Your task to perform on an android device: Show the shopping cart on costco.com. Search for "dell xps" on costco.com, select the first entry, add it to the cart, then select checkout. Image 0: 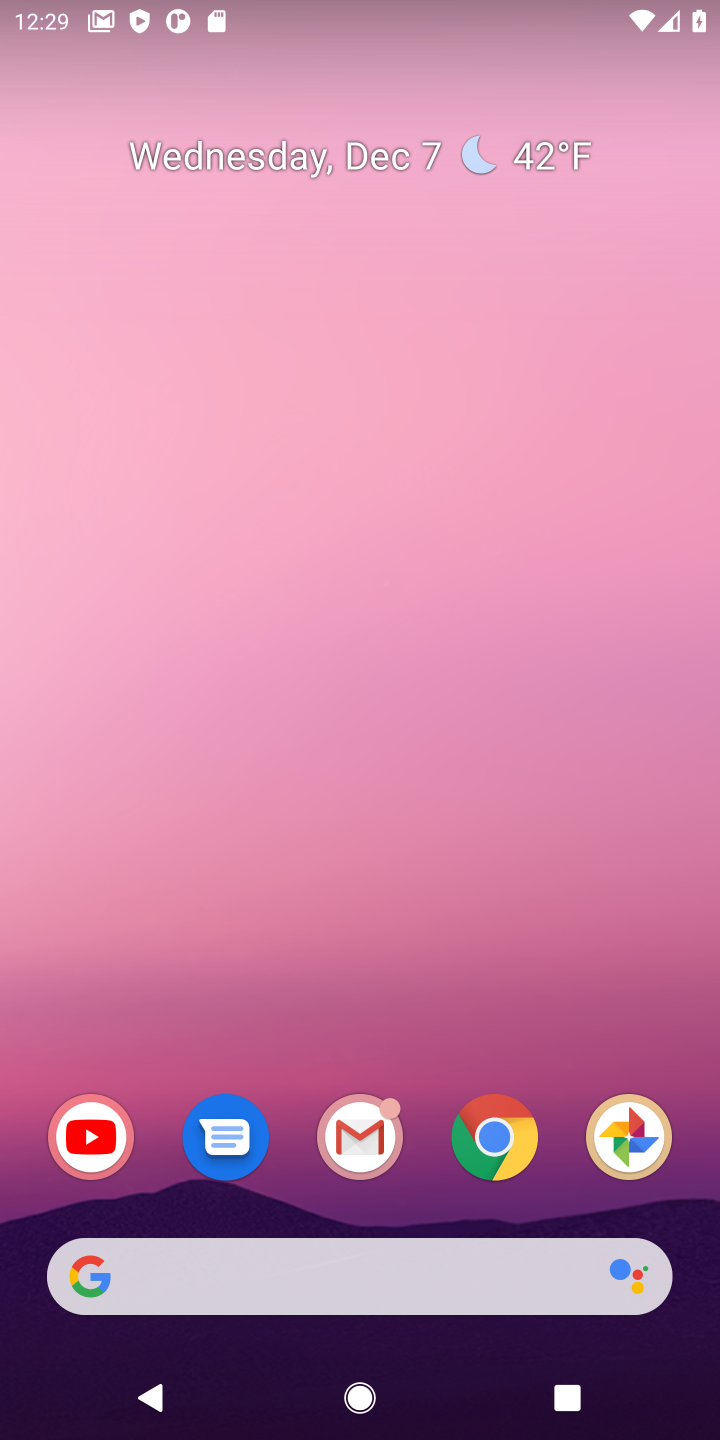
Step 0: drag from (527, 954) to (569, 436)
Your task to perform on an android device: Show the shopping cart on costco.com. Search for "dell xps" on costco.com, select the first entry, add it to the cart, then select checkout. Image 1: 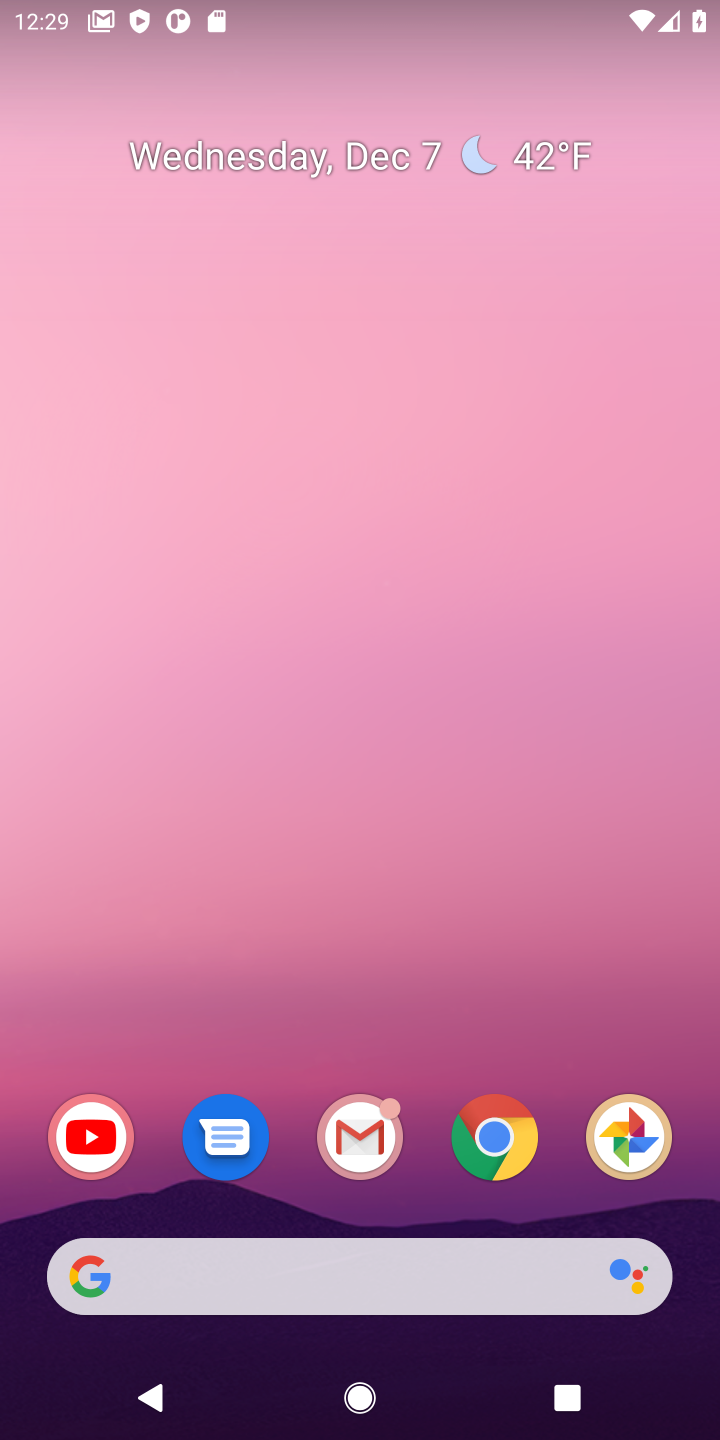
Step 1: drag from (237, 1267) to (326, 532)
Your task to perform on an android device: Show the shopping cart on costco.com. Search for "dell xps" on costco.com, select the first entry, add it to the cart, then select checkout. Image 2: 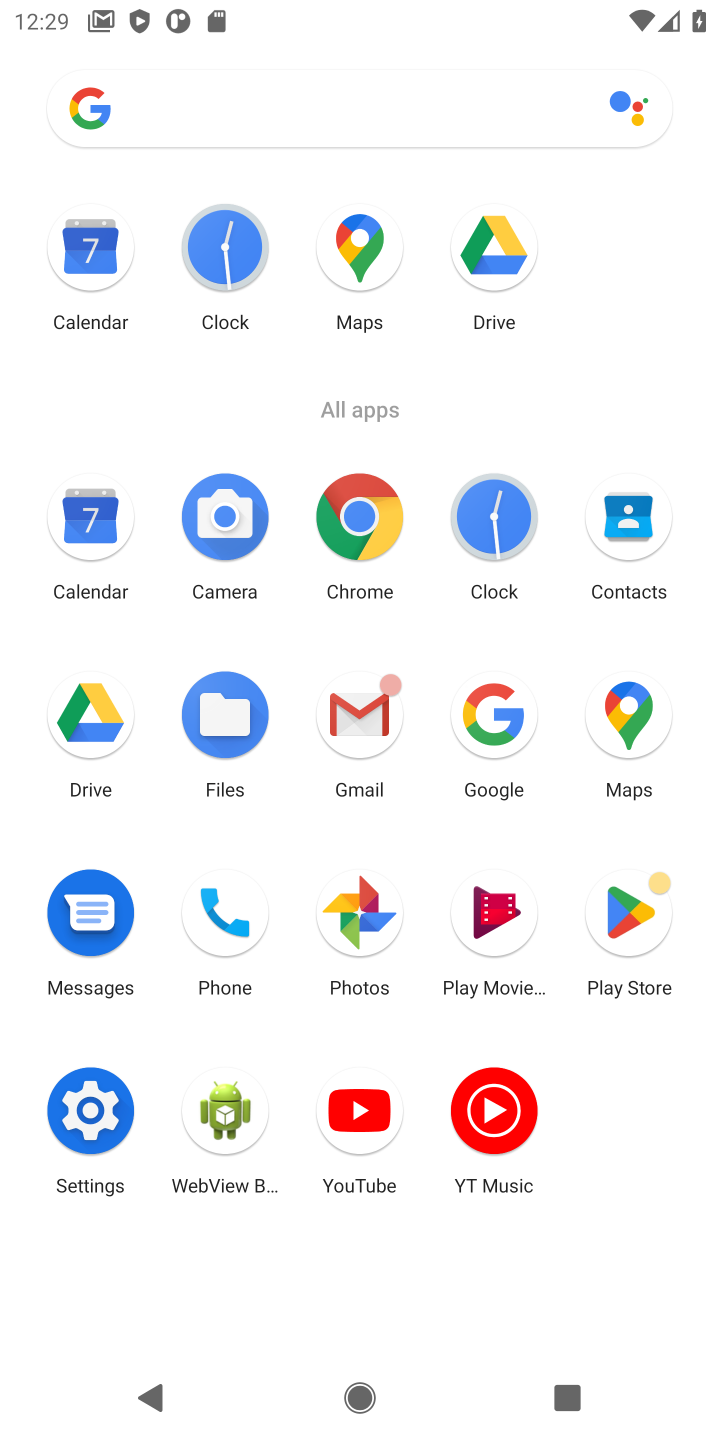
Step 2: click (481, 703)
Your task to perform on an android device: Show the shopping cart on costco.com. Search for "dell xps" on costco.com, select the first entry, add it to the cart, then select checkout. Image 3: 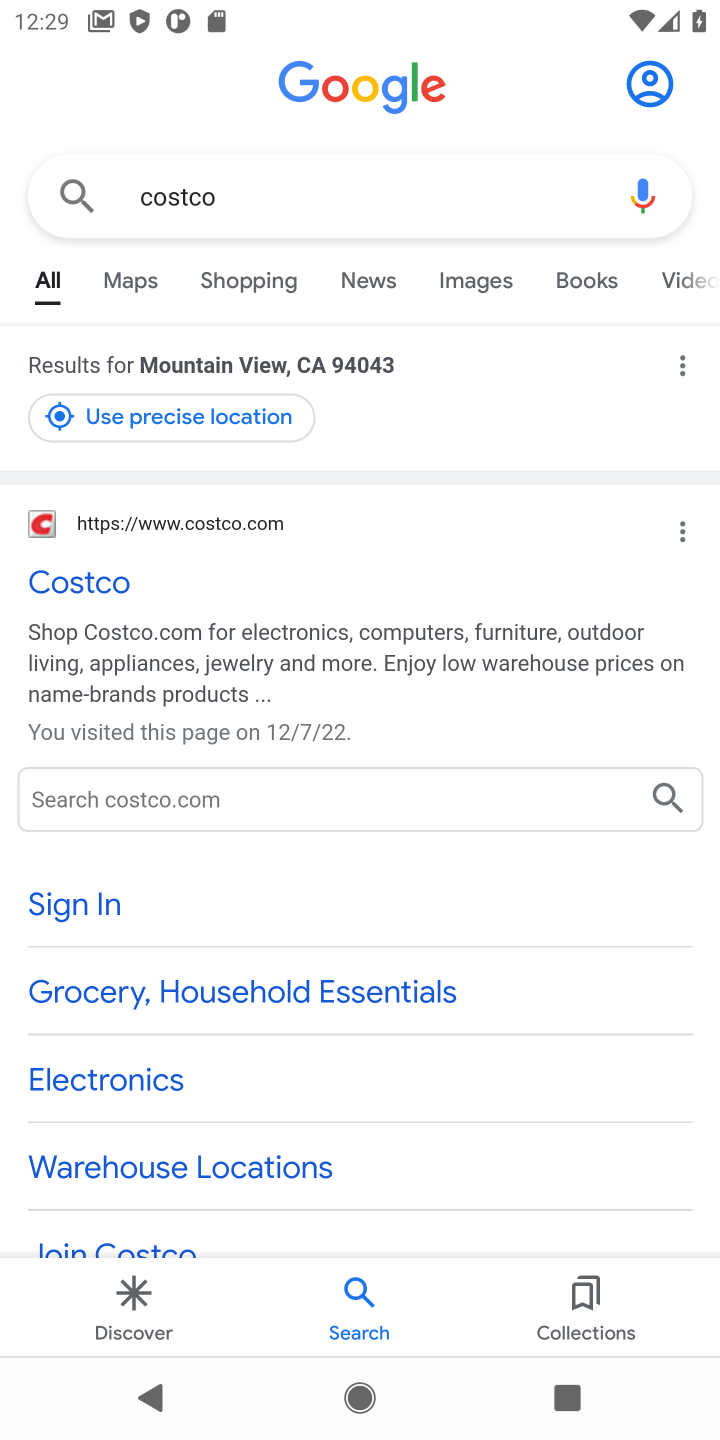
Step 3: click (99, 588)
Your task to perform on an android device: Show the shopping cart on costco.com. Search for "dell xps" on costco.com, select the first entry, add it to the cart, then select checkout. Image 4: 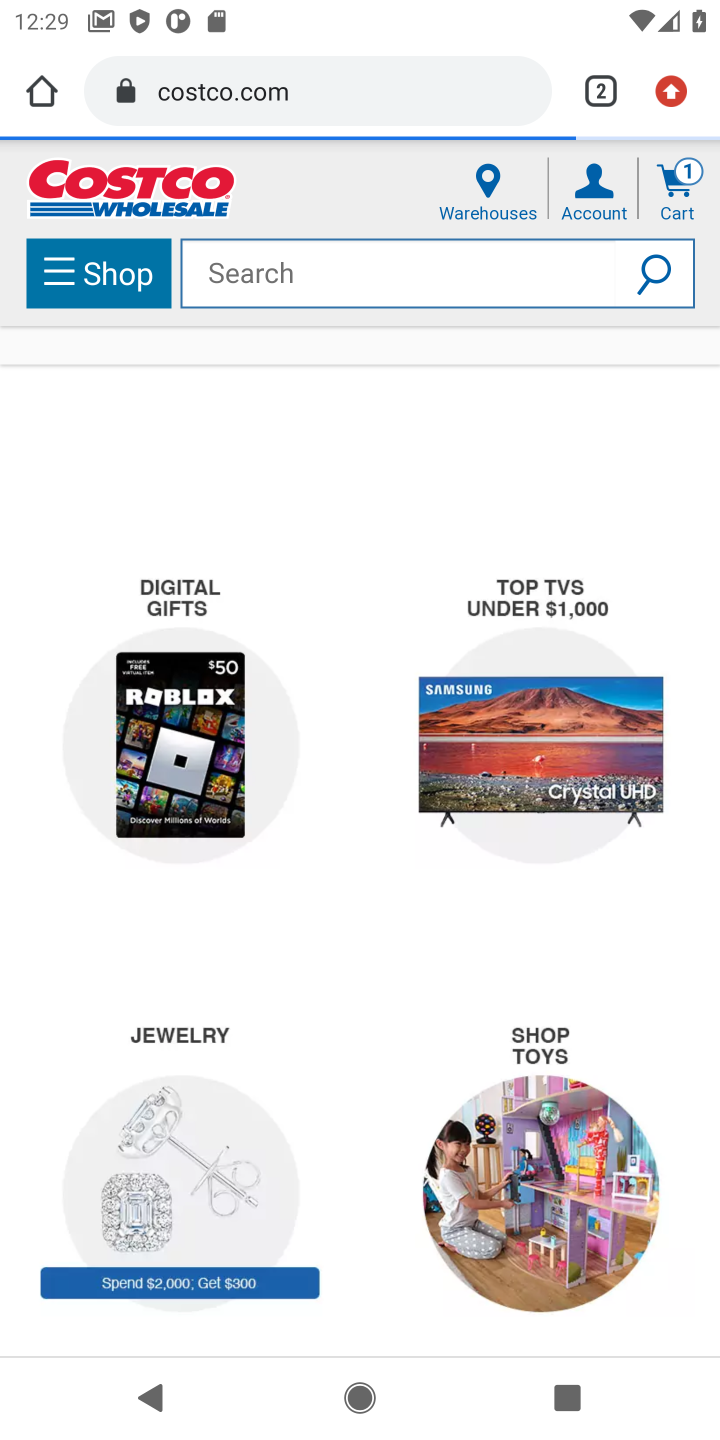
Step 4: click (316, 287)
Your task to perform on an android device: Show the shopping cart on costco.com. Search for "dell xps" on costco.com, select the first entry, add it to the cart, then select checkout. Image 5: 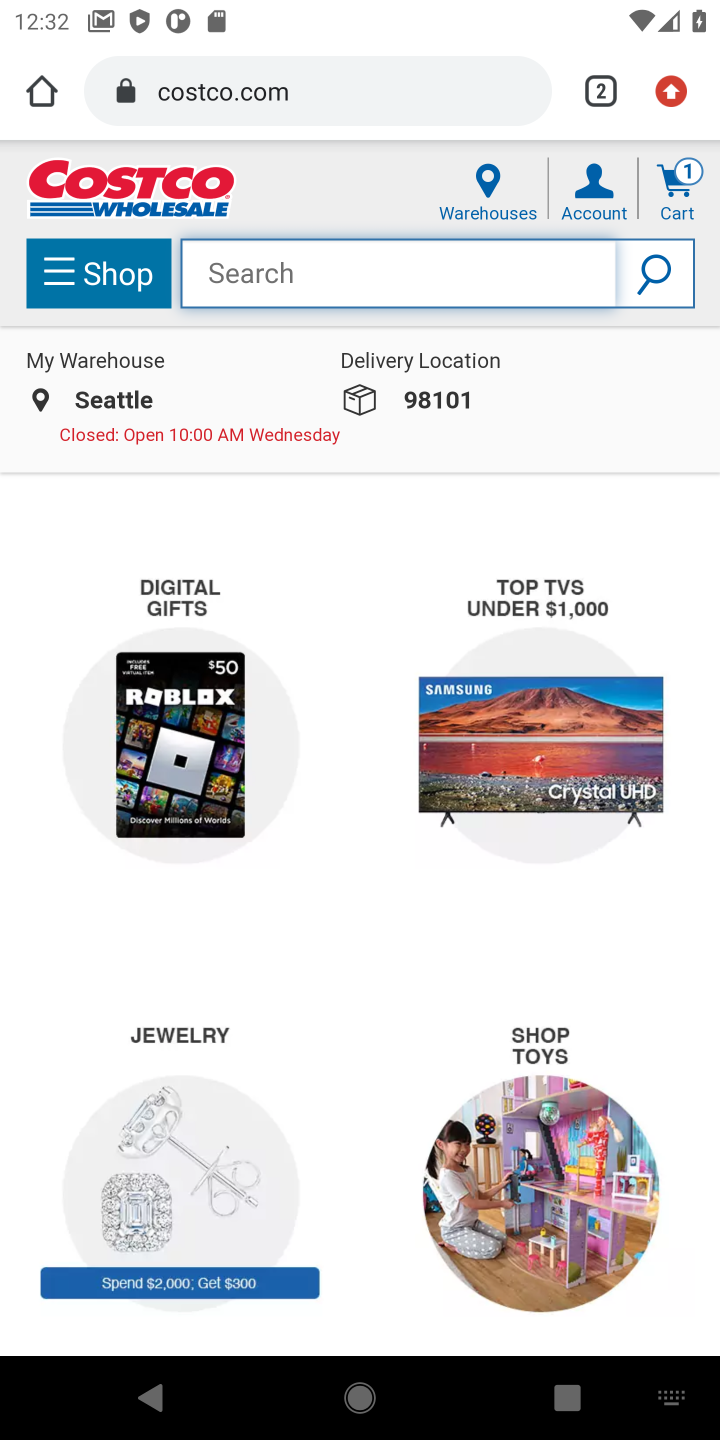
Step 5: click (672, 181)
Your task to perform on an android device: Show the shopping cart on costco.com. Search for "dell xps" on costco.com, select the first entry, add it to the cart, then select checkout. Image 6: 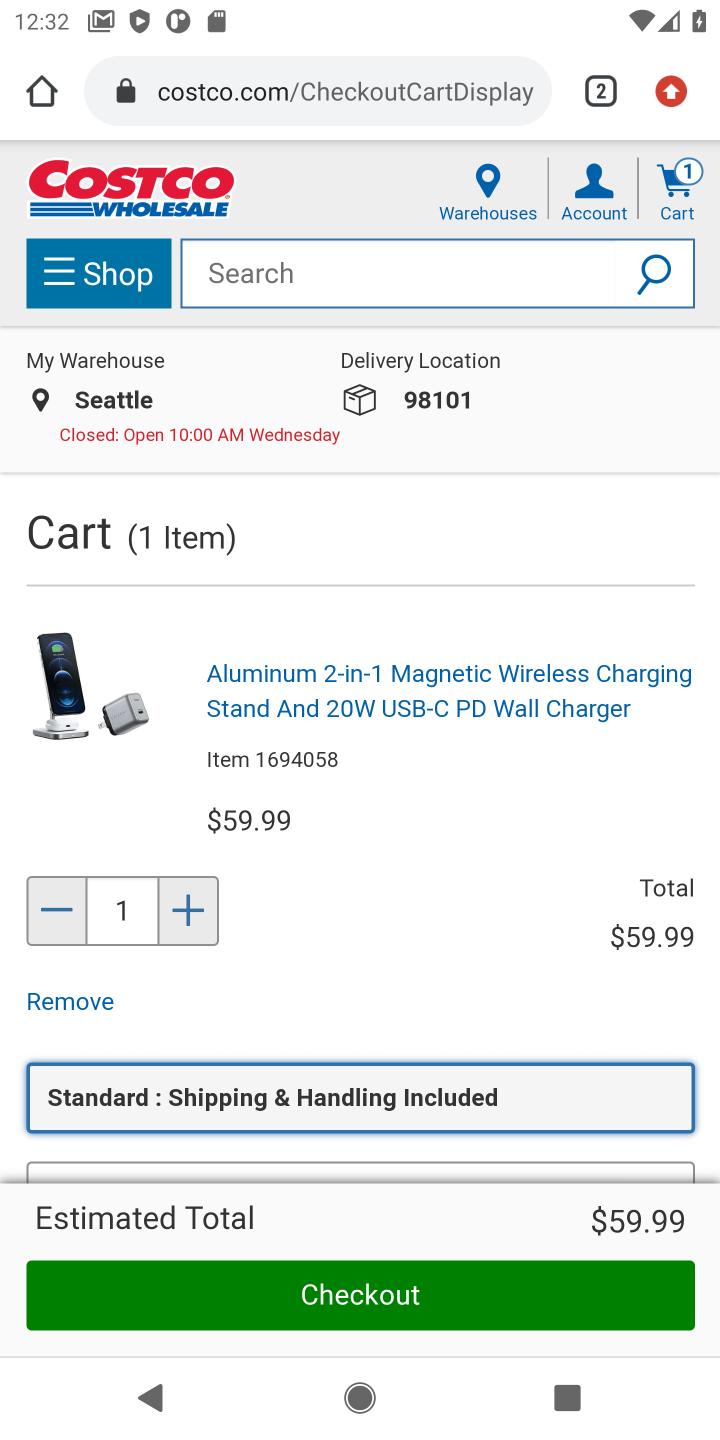
Step 6: click (433, 261)
Your task to perform on an android device: Show the shopping cart on costco.com. Search for "dell xps" on costco.com, select the first entry, add it to the cart, then select checkout. Image 7: 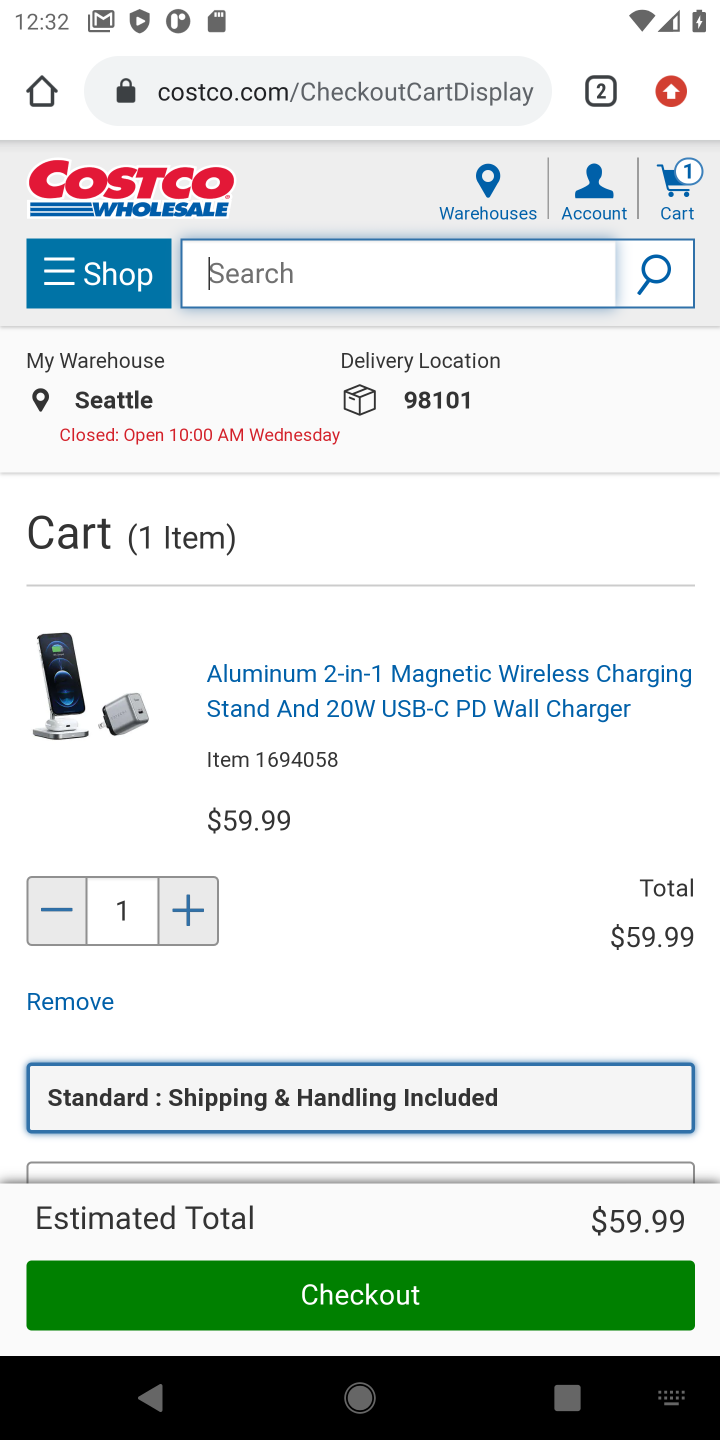
Step 7: type "dell xps"
Your task to perform on an android device: Show the shopping cart on costco.com. Search for "dell xps" on costco.com, select the first entry, add it to the cart, then select checkout. Image 8: 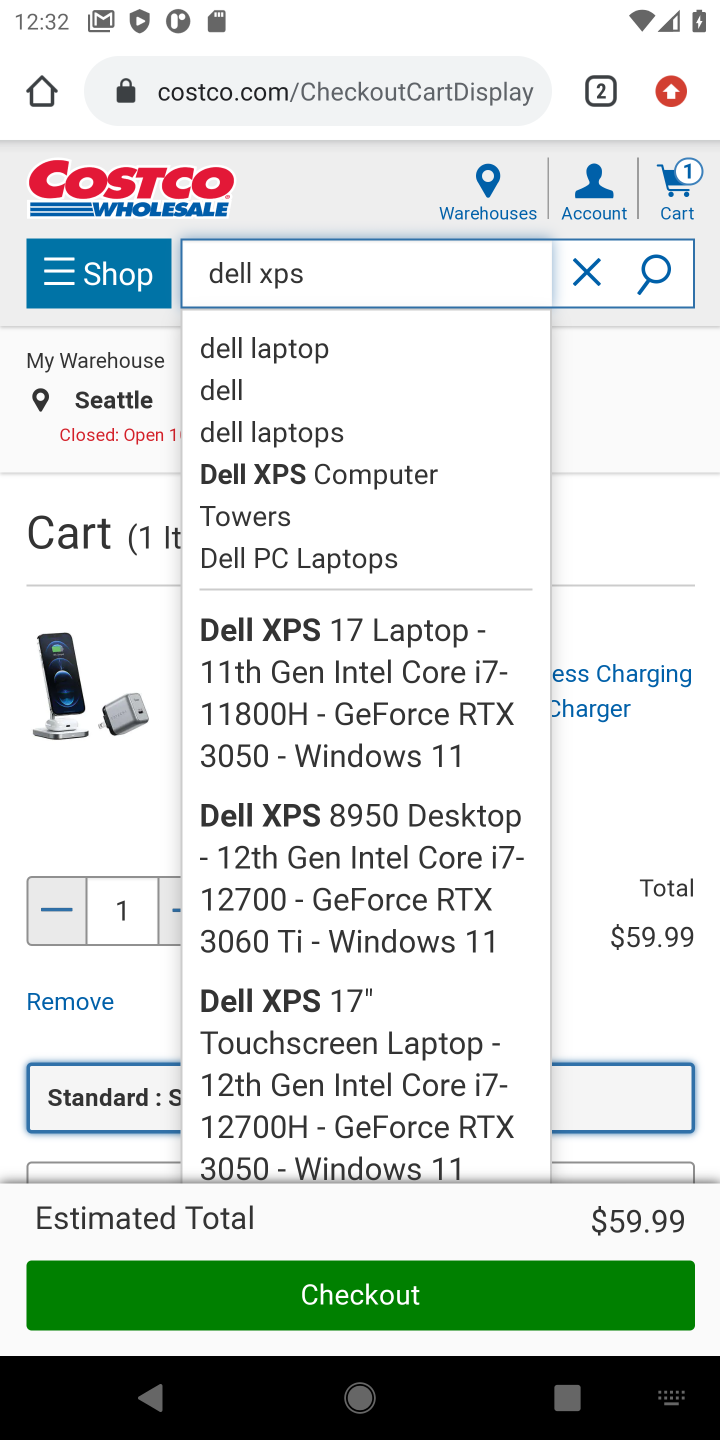
Step 8: click (230, 388)
Your task to perform on an android device: Show the shopping cart on costco.com. Search for "dell xps" on costco.com, select the first entry, add it to the cart, then select checkout. Image 9: 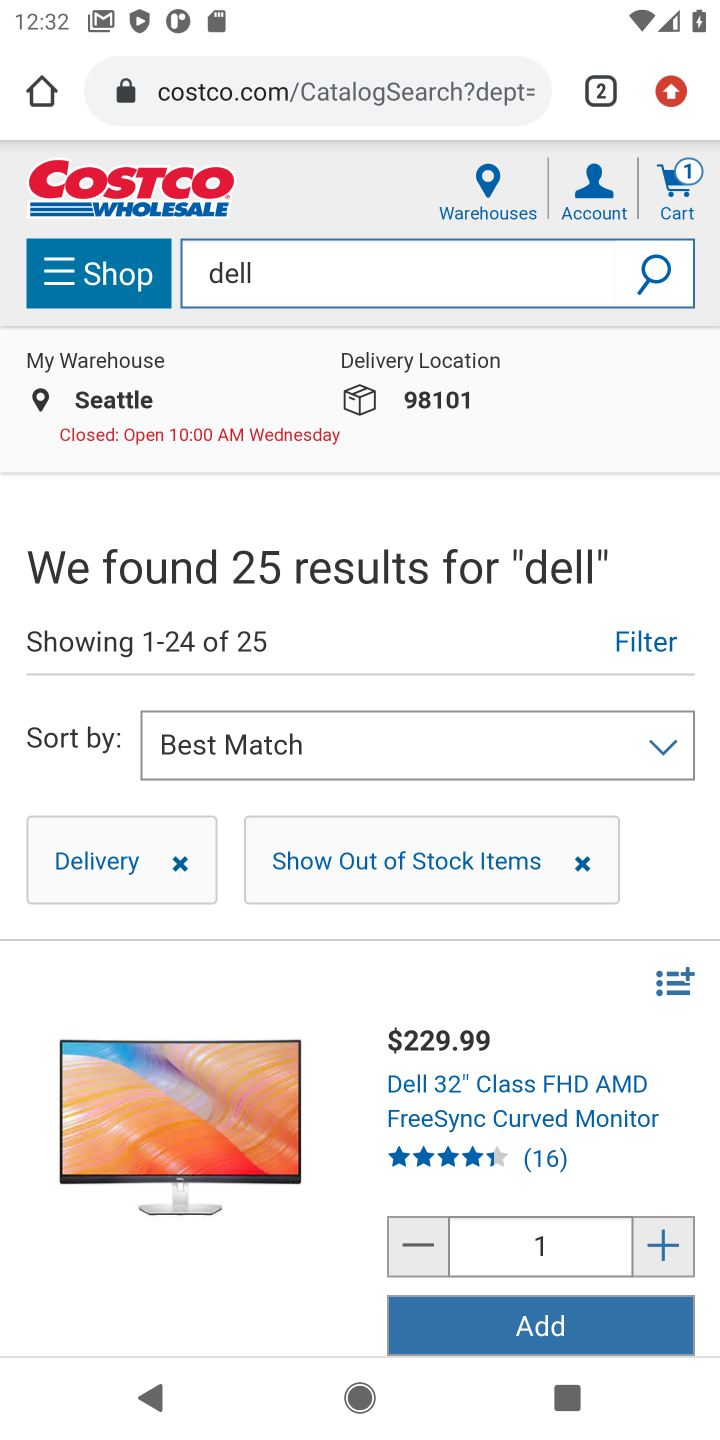
Step 9: task complete